Your task to perform on an android device: Go to Amazon Image 0: 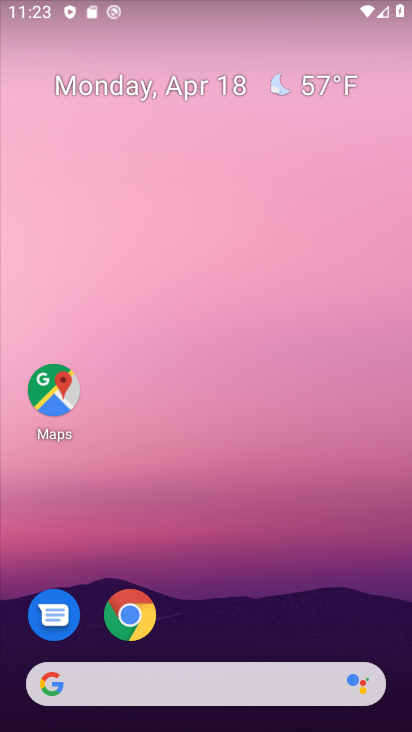
Step 0: click (134, 598)
Your task to perform on an android device: Go to Amazon Image 1: 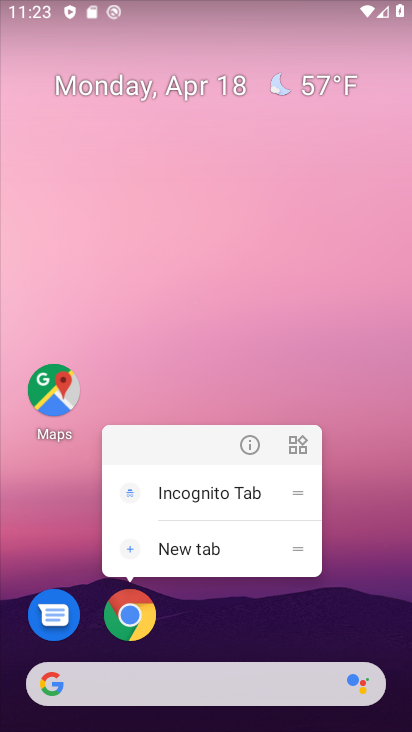
Step 1: click (144, 617)
Your task to perform on an android device: Go to Amazon Image 2: 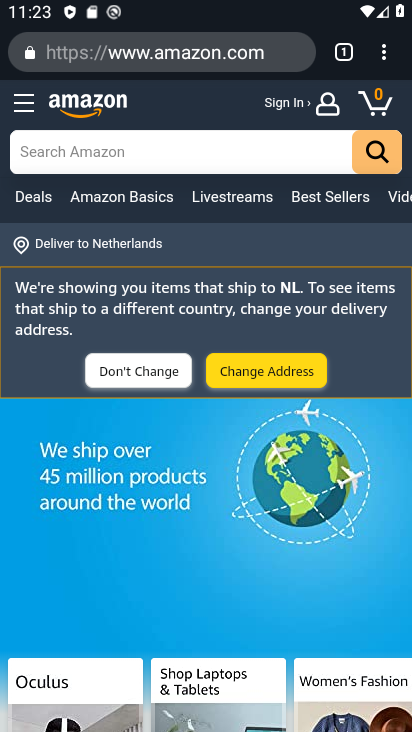
Step 2: task complete